Your task to perform on an android device: open a bookmark in the chrome app Image 0: 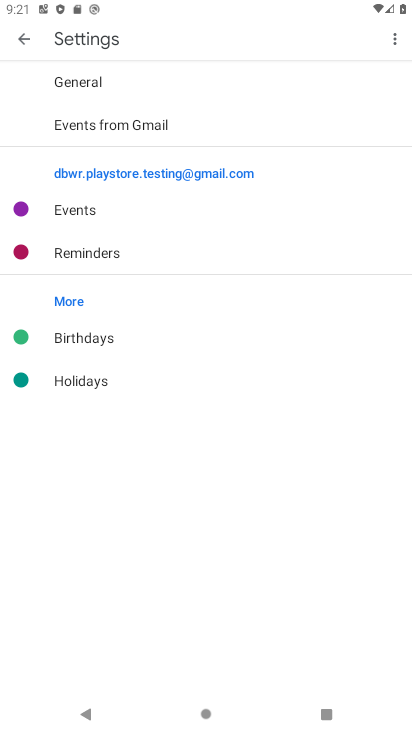
Step 0: press back button
Your task to perform on an android device: open a bookmark in the chrome app Image 1: 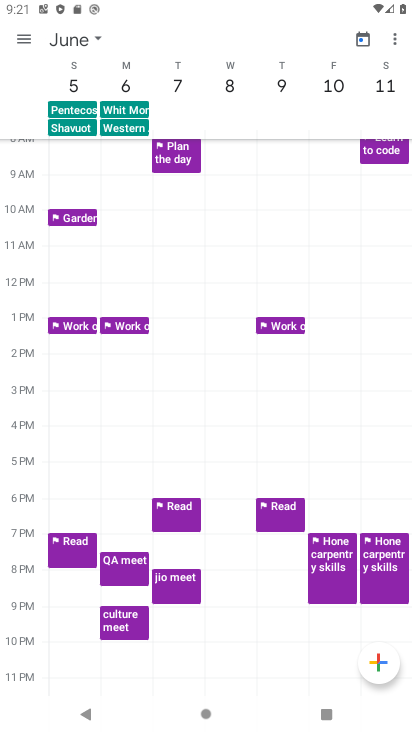
Step 1: press home button
Your task to perform on an android device: open a bookmark in the chrome app Image 2: 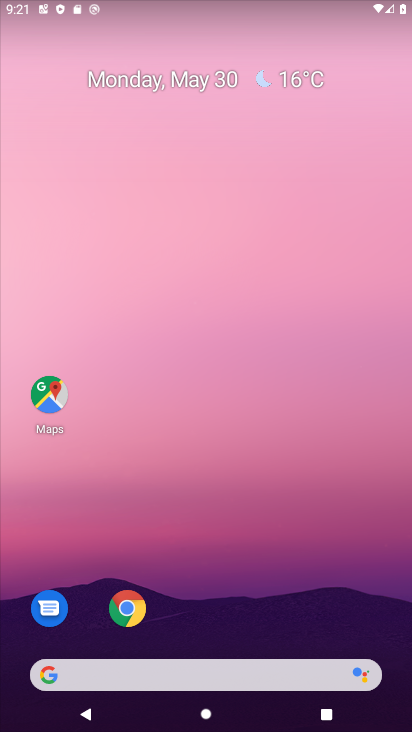
Step 2: click (128, 623)
Your task to perform on an android device: open a bookmark in the chrome app Image 3: 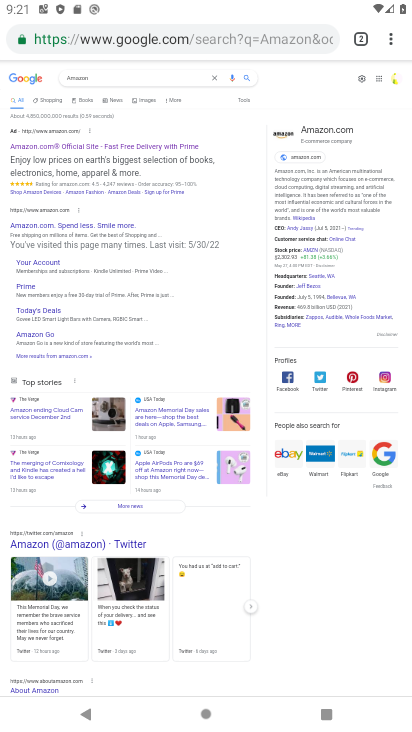
Step 3: click (389, 41)
Your task to perform on an android device: open a bookmark in the chrome app Image 4: 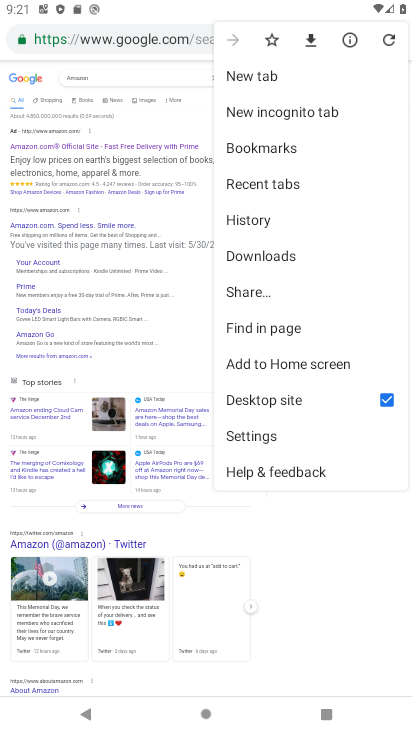
Step 4: click (241, 437)
Your task to perform on an android device: open a bookmark in the chrome app Image 5: 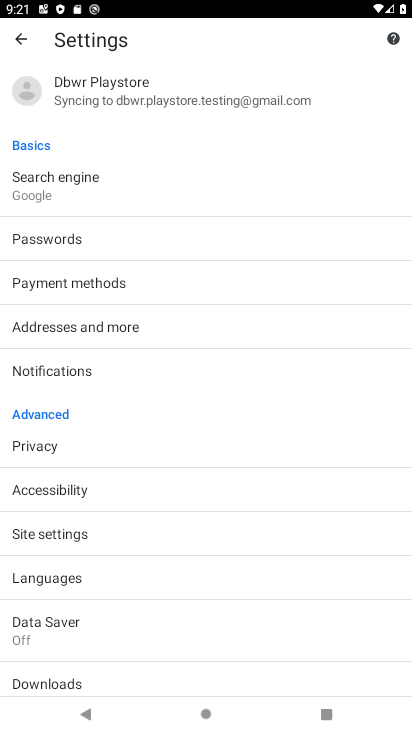
Step 5: click (19, 38)
Your task to perform on an android device: open a bookmark in the chrome app Image 6: 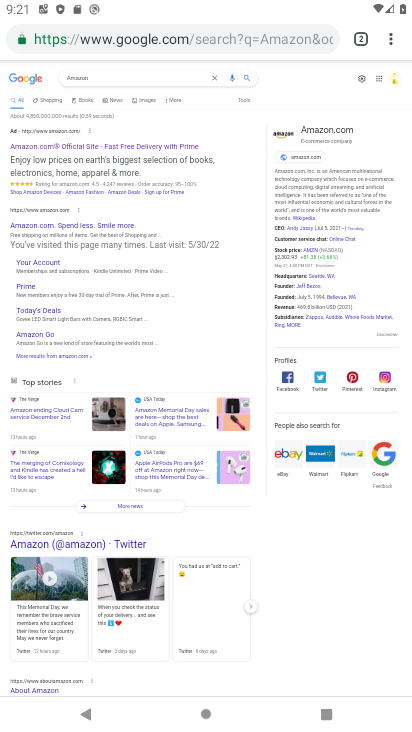
Step 6: click (392, 37)
Your task to perform on an android device: open a bookmark in the chrome app Image 7: 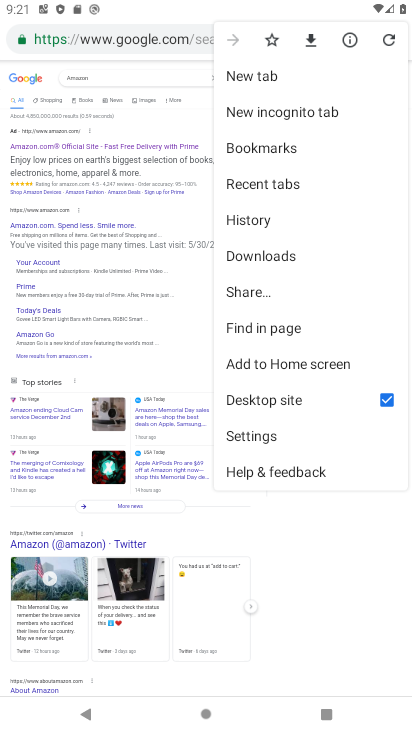
Step 7: click (262, 150)
Your task to perform on an android device: open a bookmark in the chrome app Image 8: 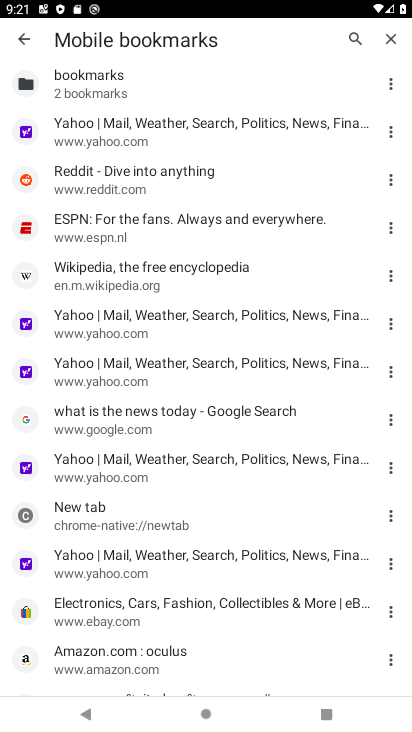
Step 8: task complete